Your task to perform on an android device: Open calendar and show me the third week of next month Image 0: 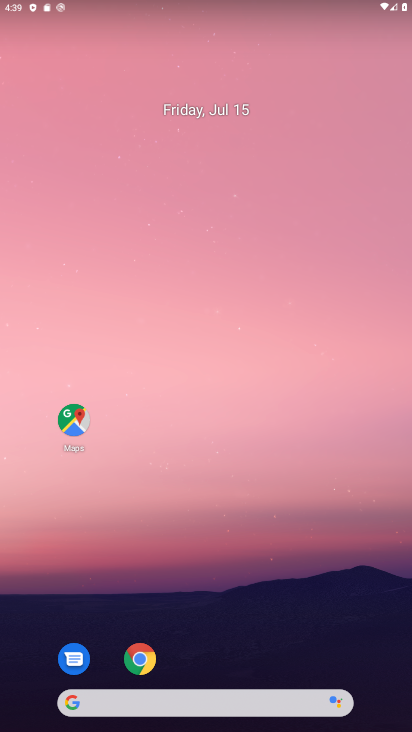
Step 0: drag from (235, 661) to (107, 77)
Your task to perform on an android device: Open calendar and show me the third week of next month Image 1: 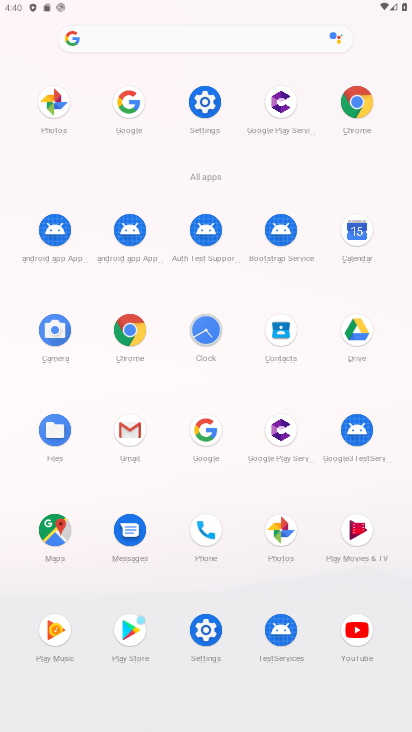
Step 1: click (358, 249)
Your task to perform on an android device: Open calendar and show me the third week of next month Image 2: 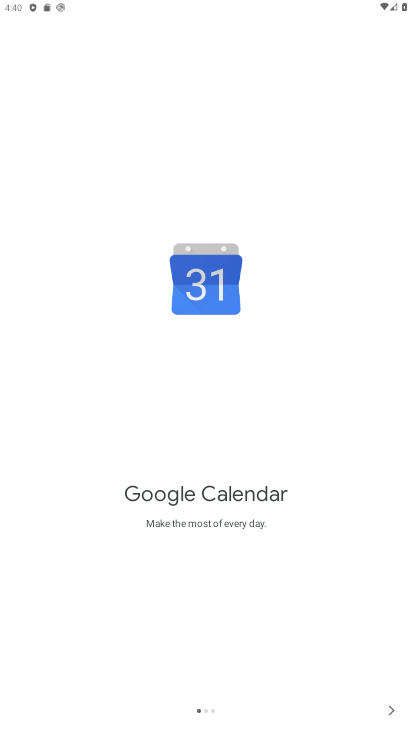
Step 2: click (381, 701)
Your task to perform on an android device: Open calendar and show me the third week of next month Image 3: 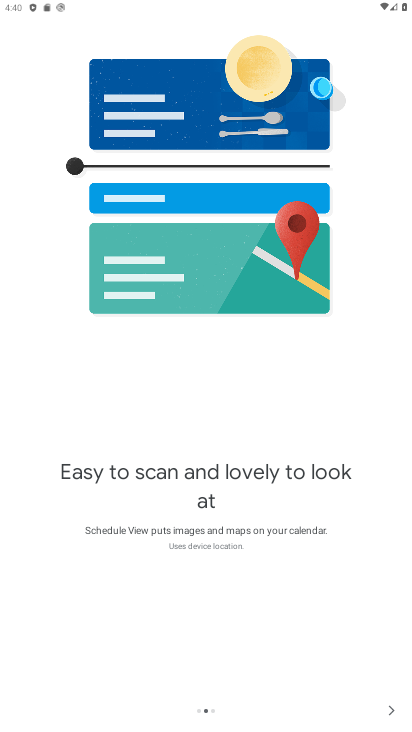
Step 3: click (380, 703)
Your task to perform on an android device: Open calendar and show me the third week of next month Image 4: 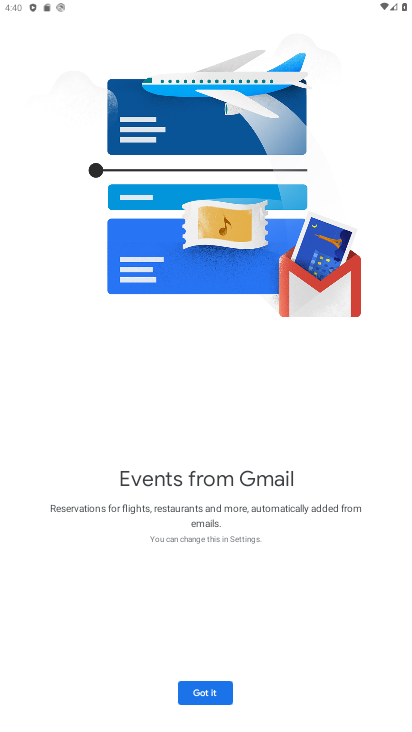
Step 4: click (213, 700)
Your task to perform on an android device: Open calendar and show me the third week of next month Image 5: 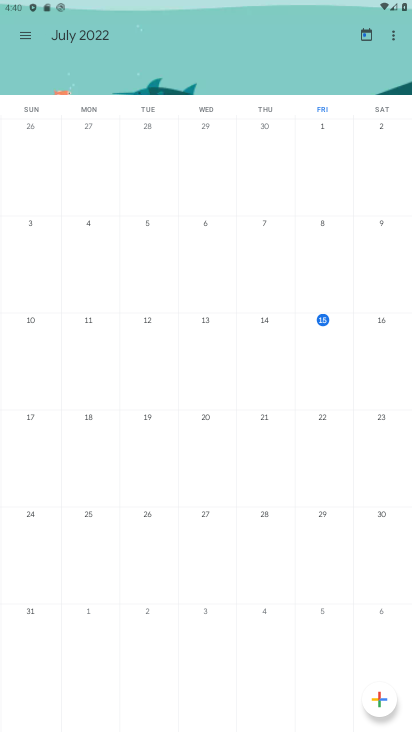
Step 5: drag from (384, 457) to (12, 378)
Your task to perform on an android device: Open calendar and show me the third week of next month Image 6: 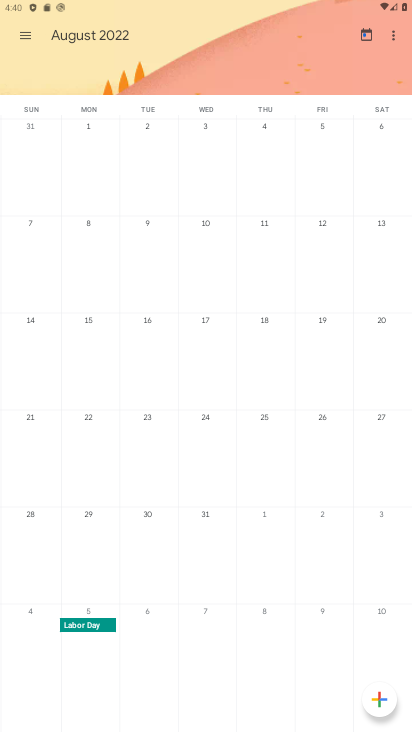
Step 6: click (40, 417)
Your task to perform on an android device: Open calendar and show me the third week of next month Image 7: 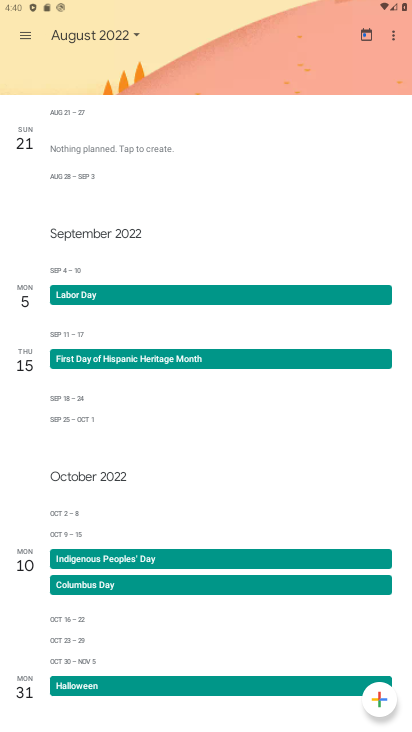
Step 7: task complete